Your task to perform on an android device: turn notification dots off Image 0: 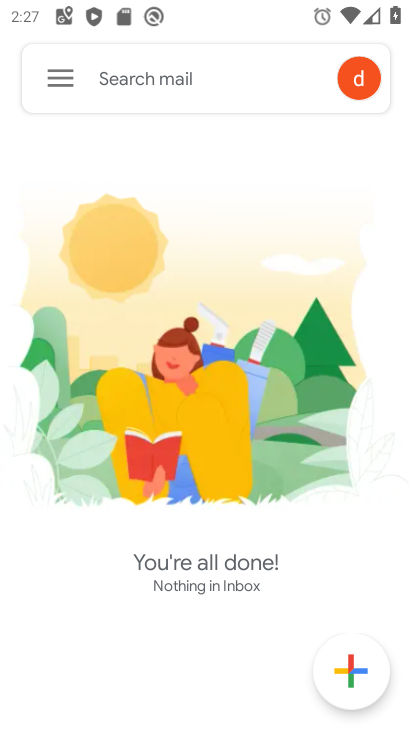
Step 0: click (56, 82)
Your task to perform on an android device: turn notification dots off Image 1: 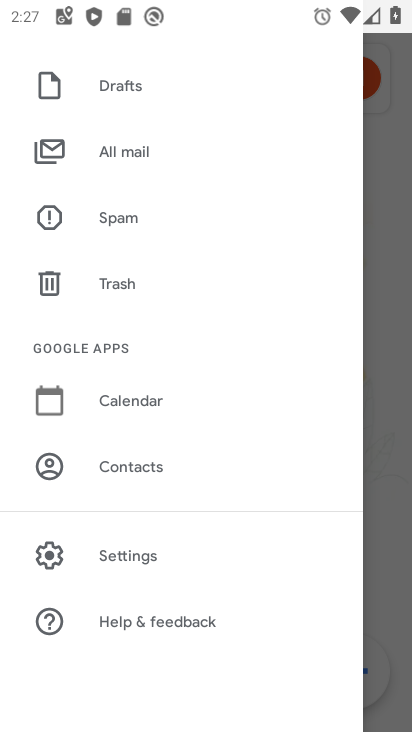
Step 1: click (151, 555)
Your task to perform on an android device: turn notification dots off Image 2: 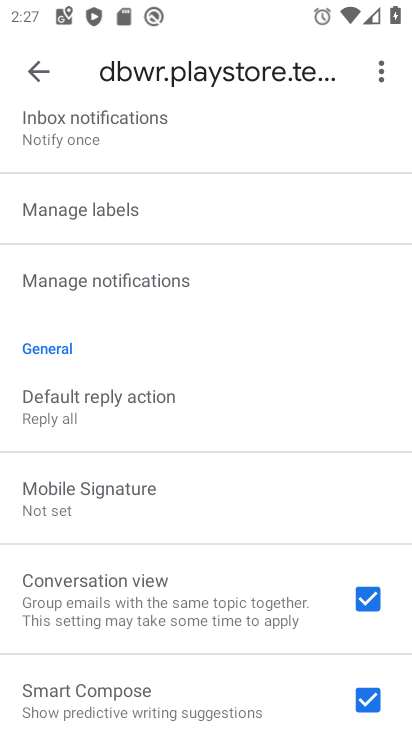
Step 2: drag from (260, 672) to (255, 163)
Your task to perform on an android device: turn notification dots off Image 3: 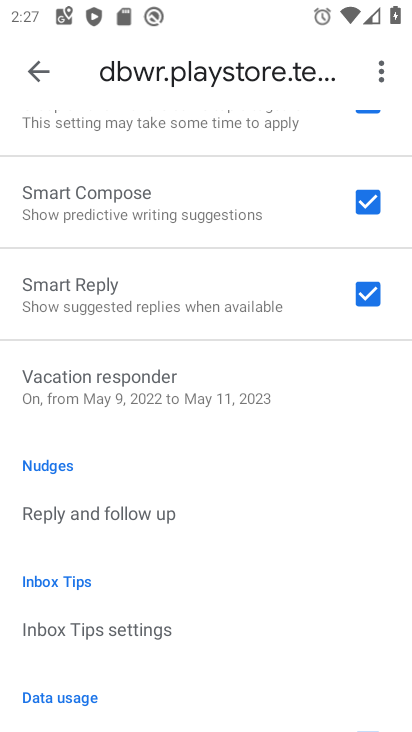
Step 3: drag from (226, 636) to (293, 67)
Your task to perform on an android device: turn notification dots off Image 4: 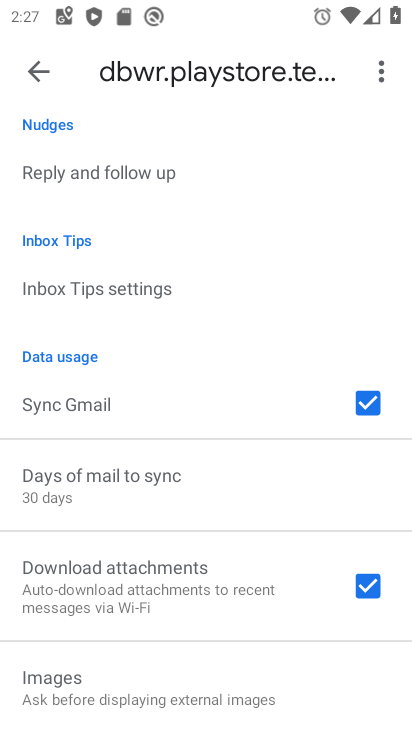
Step 4: press home button
Your task to perform on an android device: turn notification dots off Image 5: 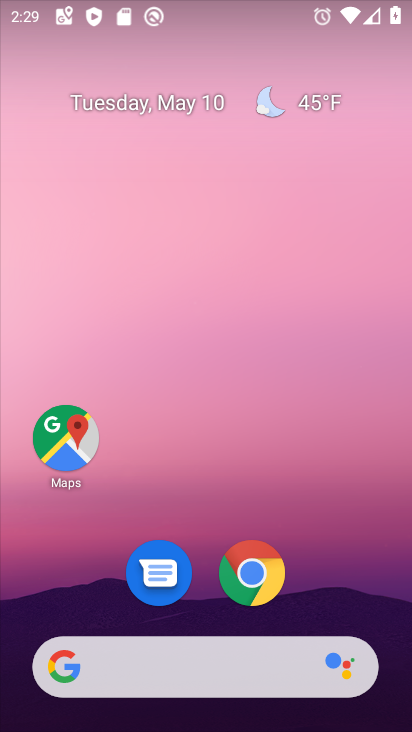
Step 5: drag from (240, 710) to (224, 126)
Your task to perform on an android device: turn notification dots off Image 6: 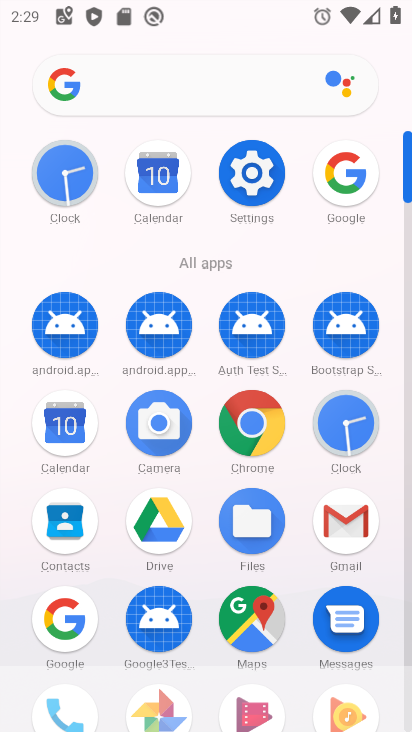
Step 6: click (241, 172)
Your task to perform on an android device: turn notification dots off Image 7: 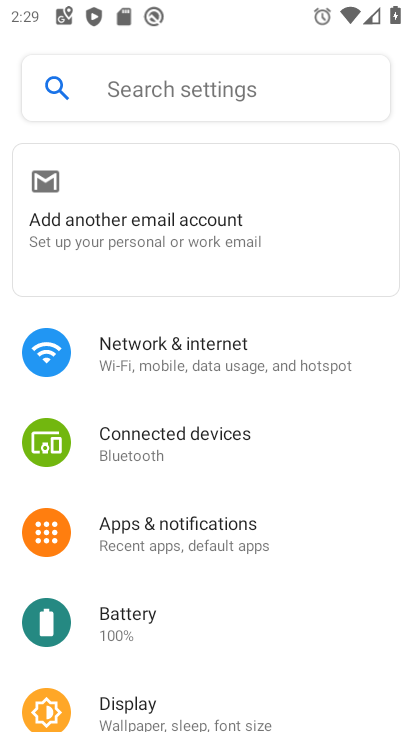
Step 7: click (245, 364)
Your task to perform on an android device: turn notification dots off Image 8: 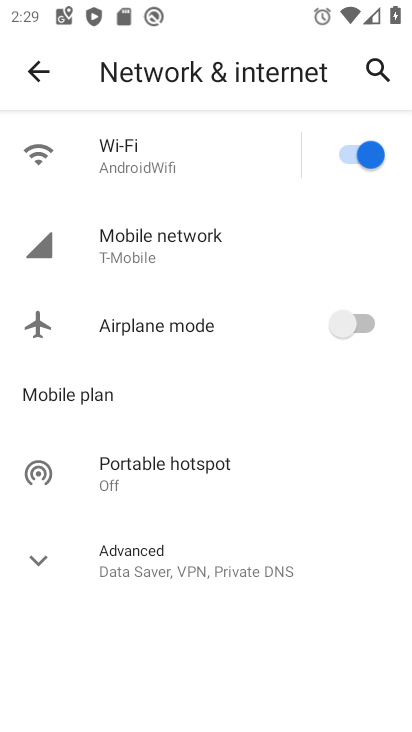
Step 8: press back button
Your task to perform on an android device: turn notification dots off Image 9: 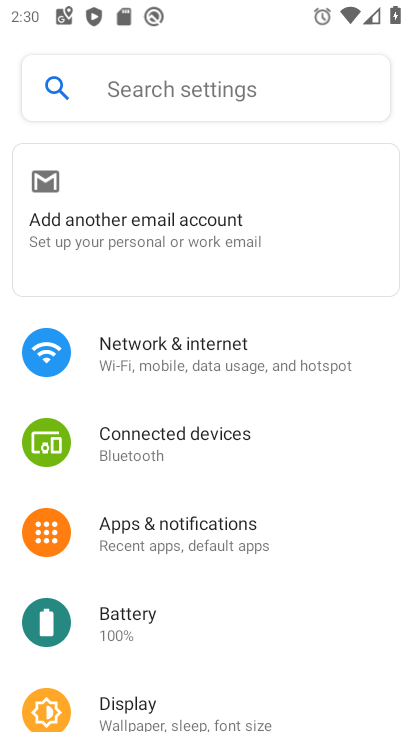
Step 9: click (259, 531)
Your task to perform on an android device: turn notification dots off Image 10: 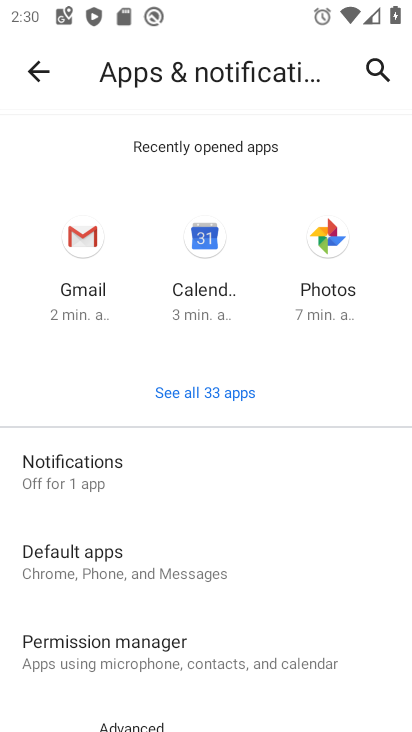
Step 10: click (151, 487)
Your task to perform on an android device: turn notification dots off Image 11: 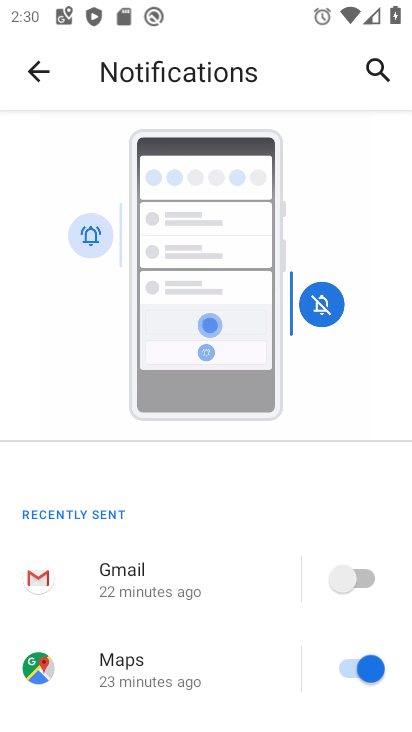
Step 11: drag from (215, 589) to (279, 9)
Your task to perform on an android device: turn notification dots off Image 12: 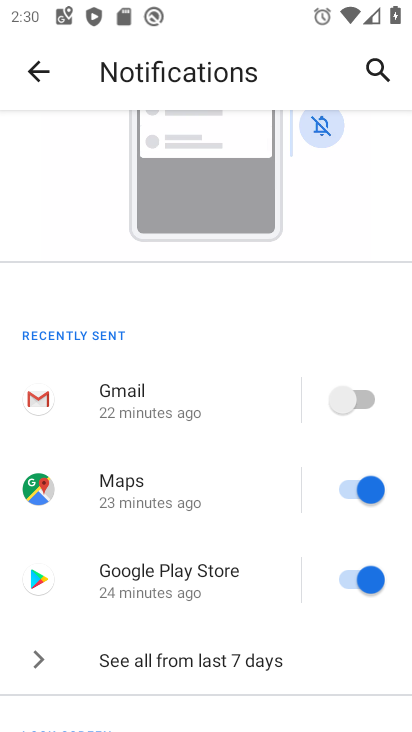
Step 12: drag from (218, 590) to (247, 4)
Your task to perform on an android device: turn notification dots off Image 13: 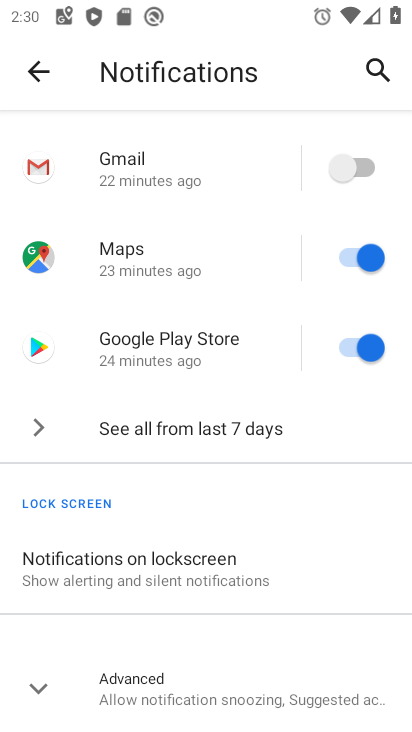
Step 13: click (243, 683)
Your task to perform on an android device: turn notification dots off Image 14: 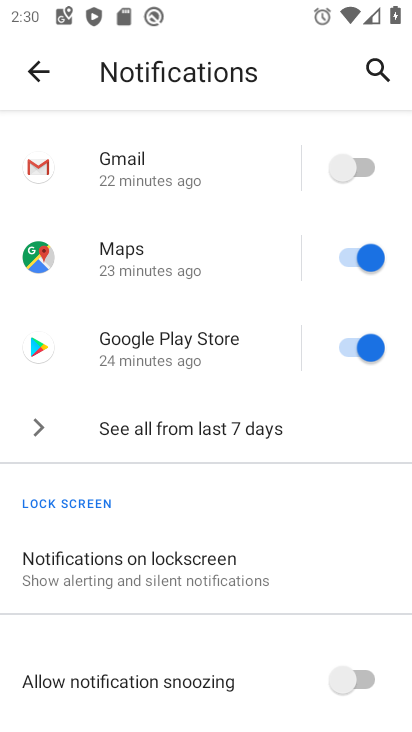
Step 14: drag from (245, 671) to (231, 1)
Your task to perform on an android device: turn notification dots off Image 15: 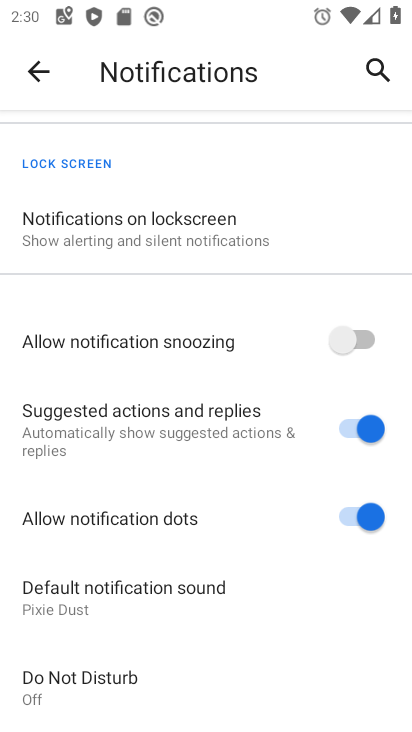
Step 15: drag from (363, 521) to (400, 616)
Your task to perform on an android device: turn notification dots off Image 16: 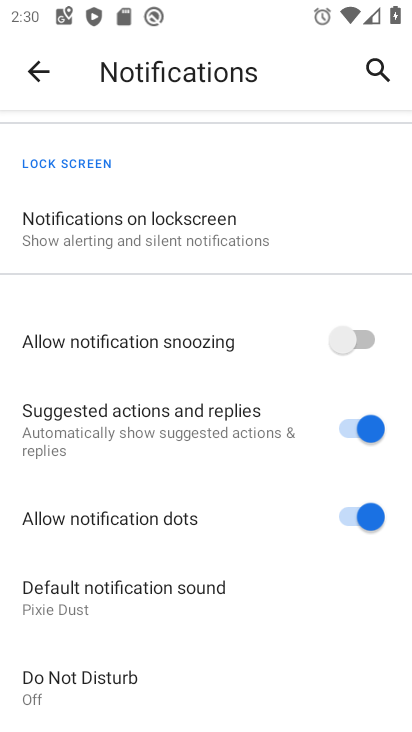
Step 16: click (368, 513)
Your task to perform on an android device: turn notification dots off Image 17: 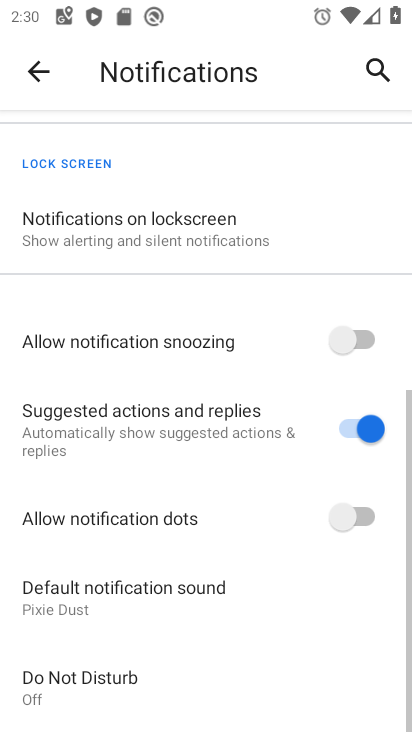
Step 17: task complete